Your task to perform on an android device: toggle pop-ups in chrome Image 0: 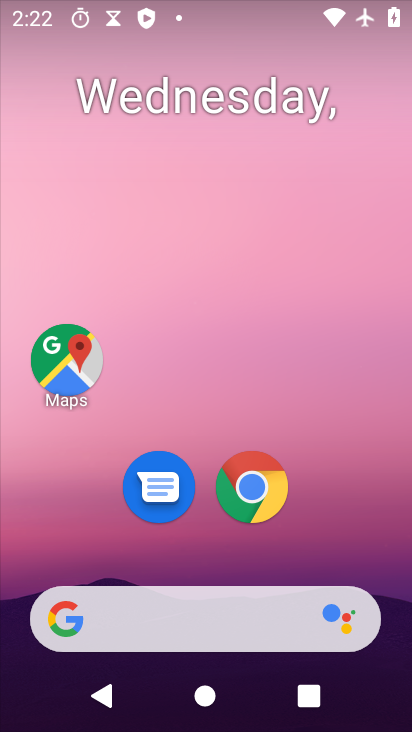
Step 0: drag from (288, 595) to (374, 81)
Your task to perform on an android device: toggle pop-ups in chrome Image 1: 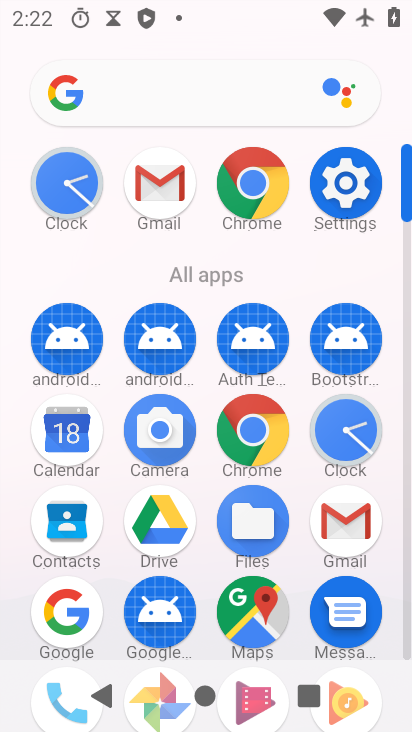
Step 1: drag from (242, 271) to (204, 92)
Your task to perform on an android device: toggle pop-ups in chrome Image 2: 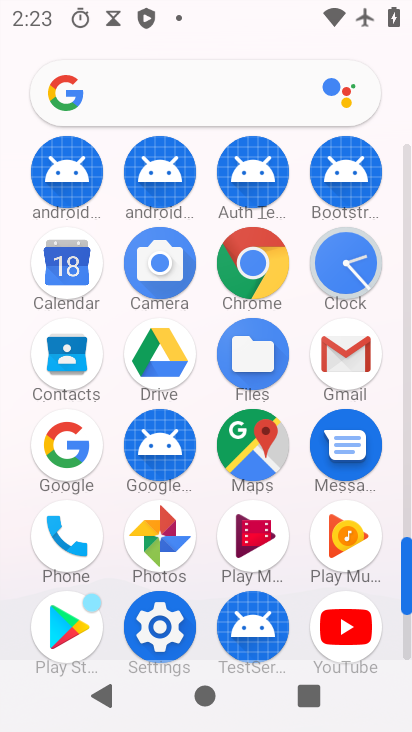
Step 2: drag from (266, 550) to (261, 199)
Your task to perform on an android device: toggle pop-ups in chrome Image 3: 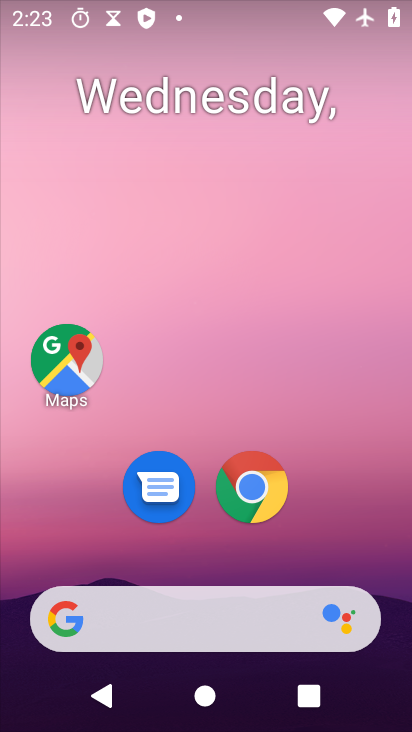
Step 3: drag from (248, 661) to (282, 194)
Your task to perform on an android device: toggle pop-ups in chrome Image 4: 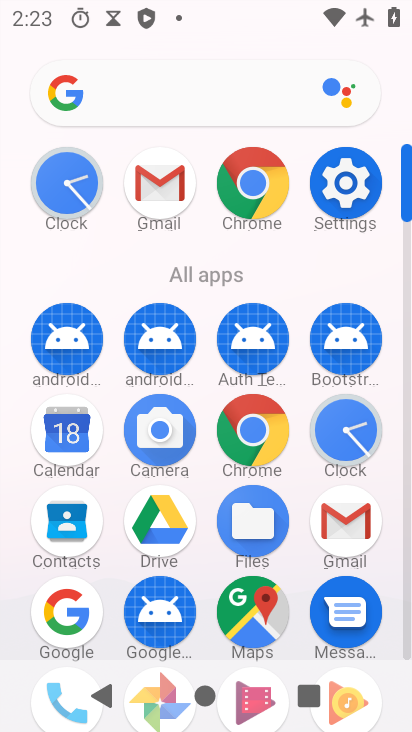
Step 4: drag from (287, 594) to (227, 133)
Your task to perform on an android device: toggle pop-ups in chrome Image 5: 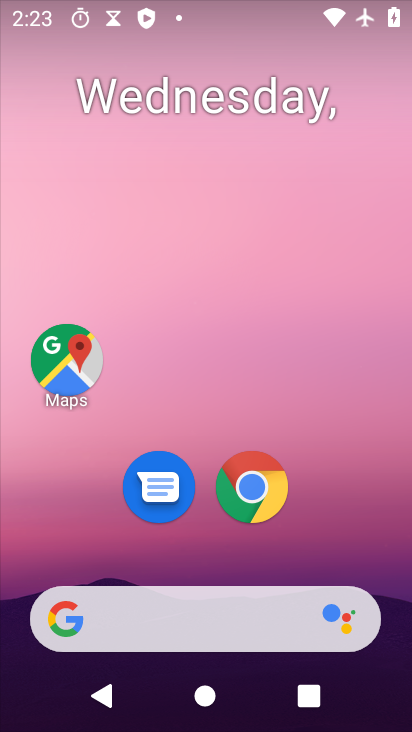
Step 5: drag from (247, 620) to (214, 157)
Your task to perform on an android device: toggle pop-ups in chrome Image 6: 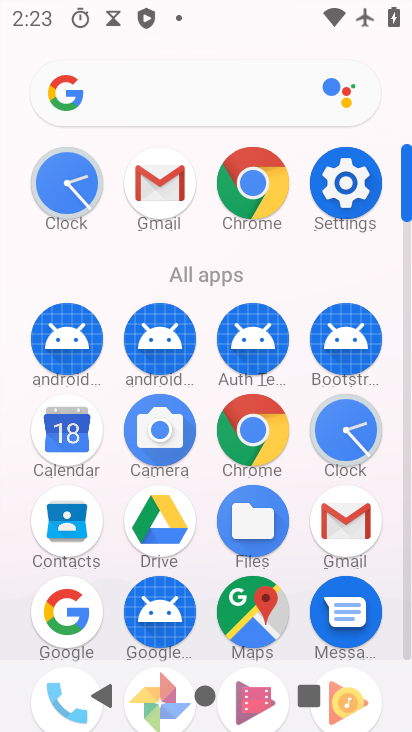
Step 6: click (248, 189)
Your task to perform on an android device: toggle pop-ups in chrome Image 7: 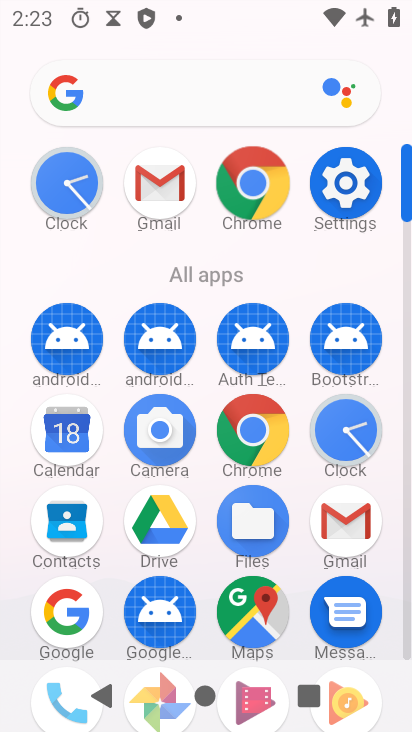
Step 7: click (248, 189)
Your task to perform on an android device: toggle pop-ups in chrome Image 8: 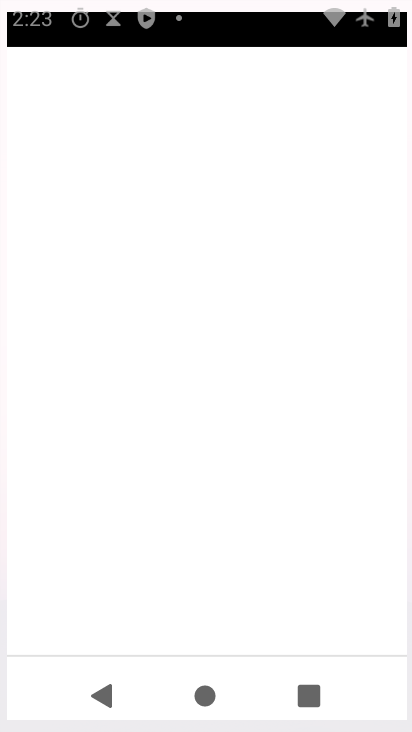
Step 8: click (248, 189)
Your task to perform on an android device: toggle pop-ups in chrome Image 9: 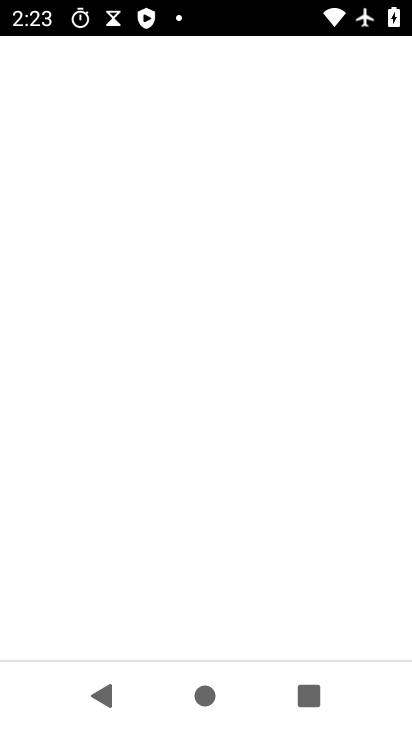
Step 9: click (248, 189)
Your task to perform on an android device: toggle pop-ups in chrome Image 10: 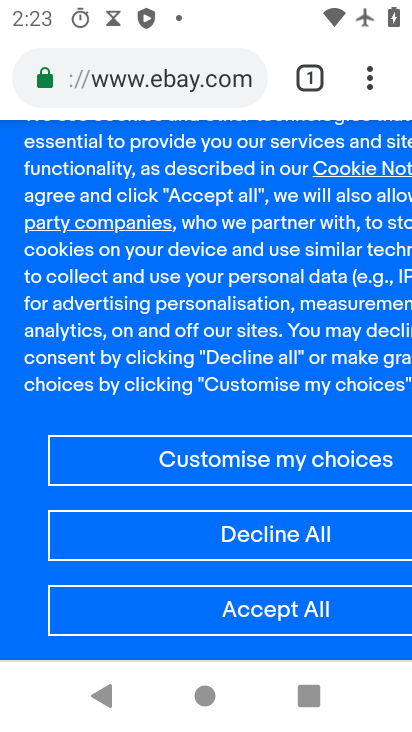
Step 10: drag from (366, 78) to (87, 551)
Your task to perform on an android device: toggle pop-ups in chrome Image 11: 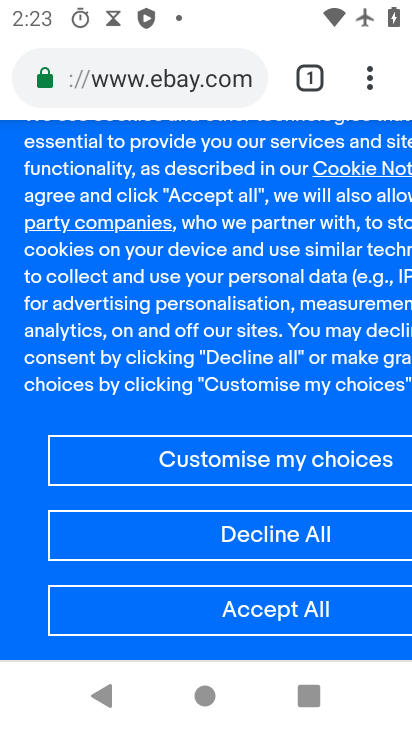
Step 11: click (87, 551)
Your task to perform on an android device: toggle pop-ups in chrome Image 12: 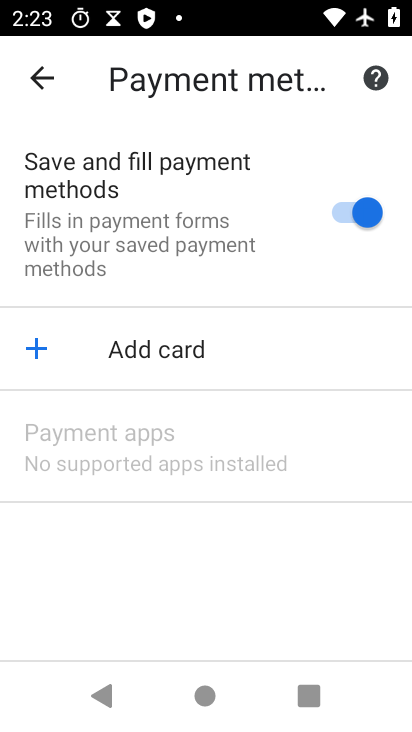
Step 12: click (42, 73)
Your task to perform on an android device: toggle pop-ups in chrome Image 13: 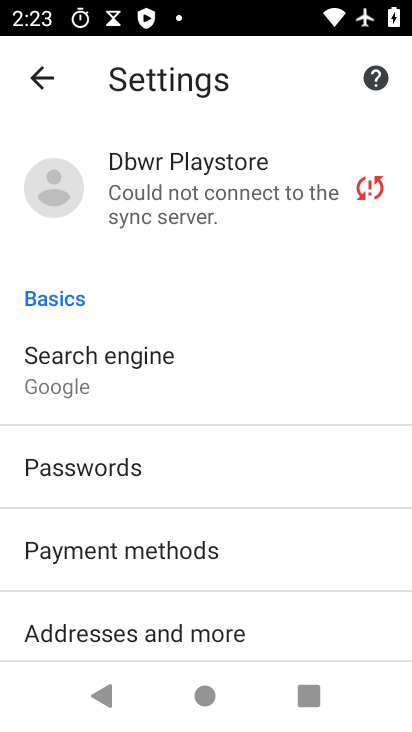
Step 13: drag from (115, 575) to (123, 87)
Your task to perform on an android device: toggle pop-ups in chrome Image 14: 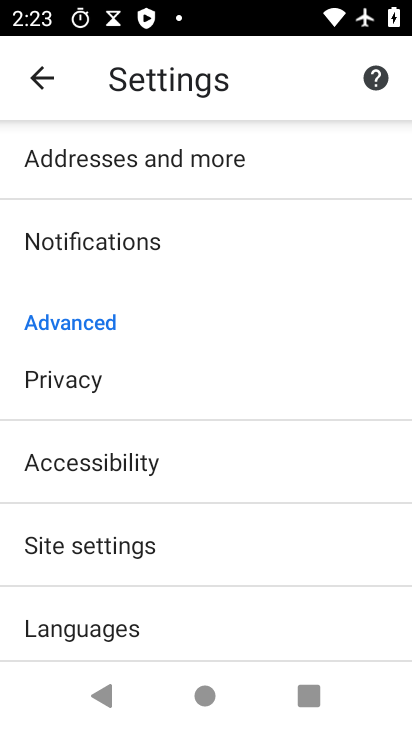
Step 14: click (66, 545)
Your task to perform on an android device: toggle pop-ups in chrome Image 15: 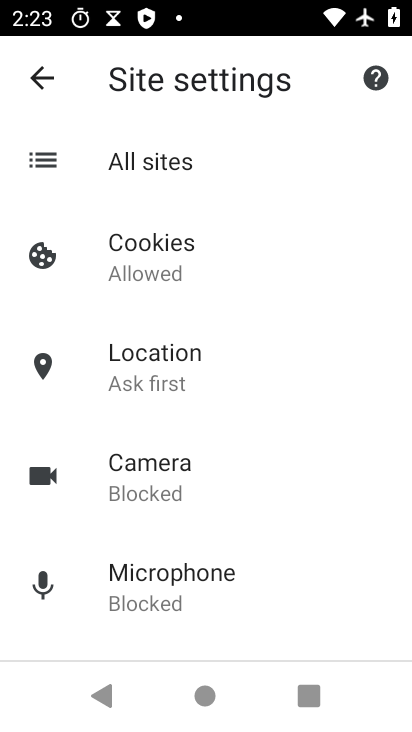
Step 15: drag from (187, 521) to (165, 119)
Your task to perform on an android device: toggle pop-ups in chrome Image 16: 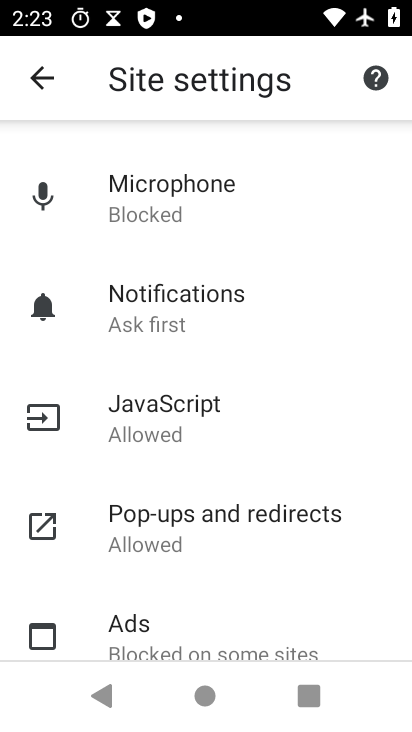
Step 16: click (144, 526)
Your task to perform on an android device: toggle pop-ups in chrome Image 17: 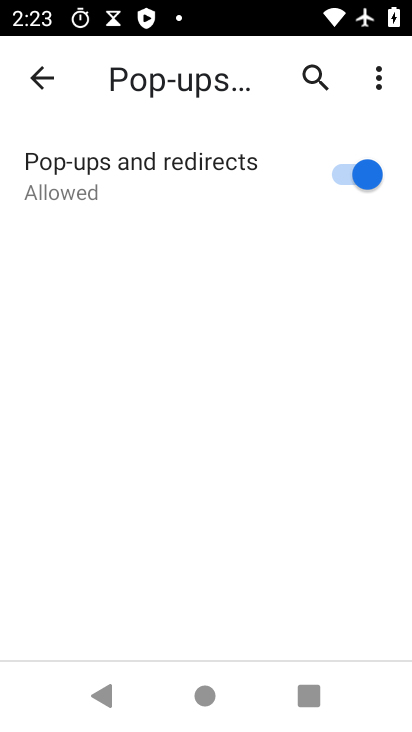
Step 17: click (365, 186)
Your task to perform on an android device: toggle pop-ups in chrome Image 18: 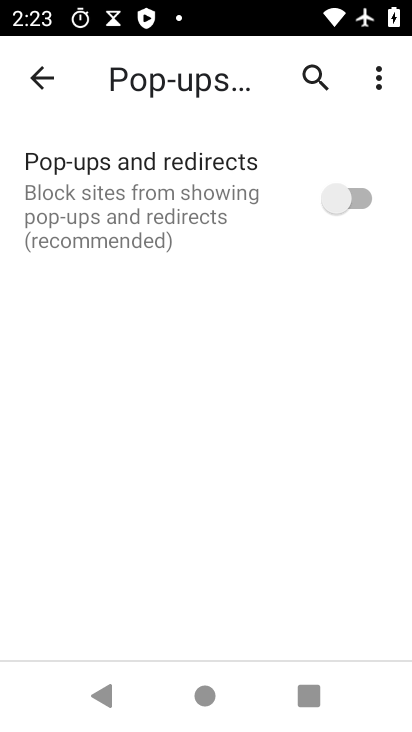
Step 18: task complete